Your task to perform on an android device: When is my next appointment? Image 0: 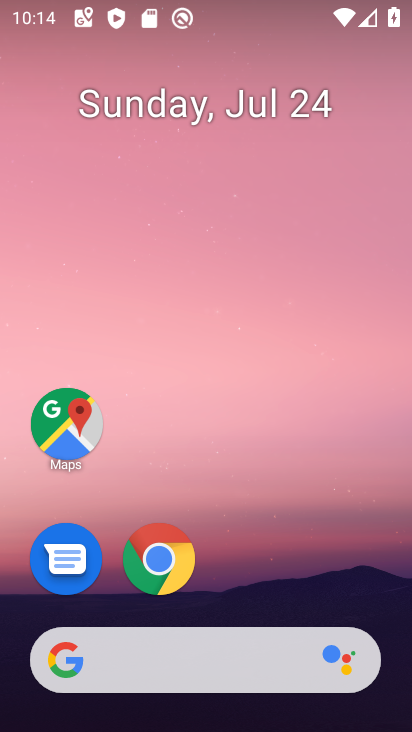
Step 0: drag from (232, 589) to (296, 10)
Your task to perform on an android device: When is my next appointment? Image 1: 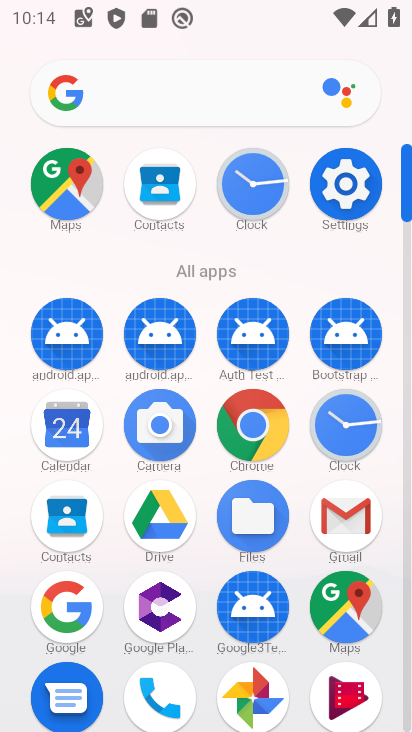
Step 1: click (174, 105)
Your task to perform on an android device: When is my next appointment? Image 2: 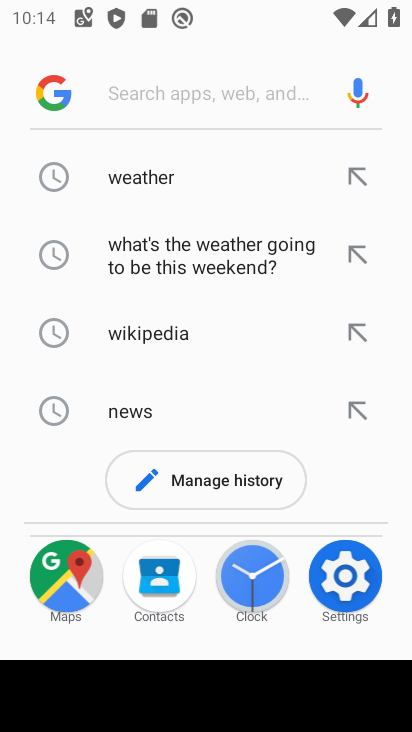
Step 2: press back button
Your task to perform on an android device: When is my next appointment? Image 3: 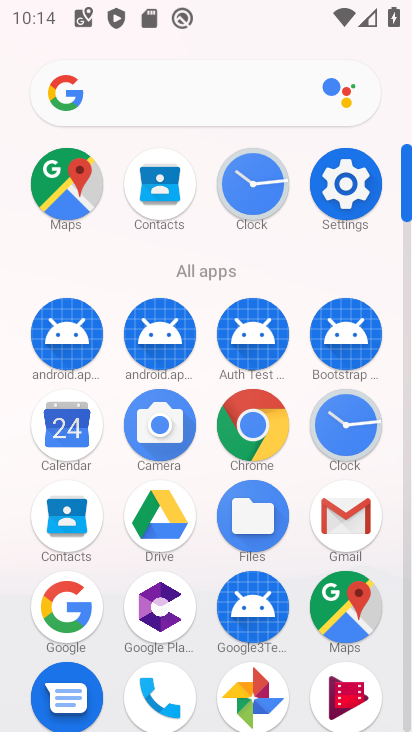
Step 3: click (187, 95)
Your task to perform on an android device: When is my next appointment? Image 4: 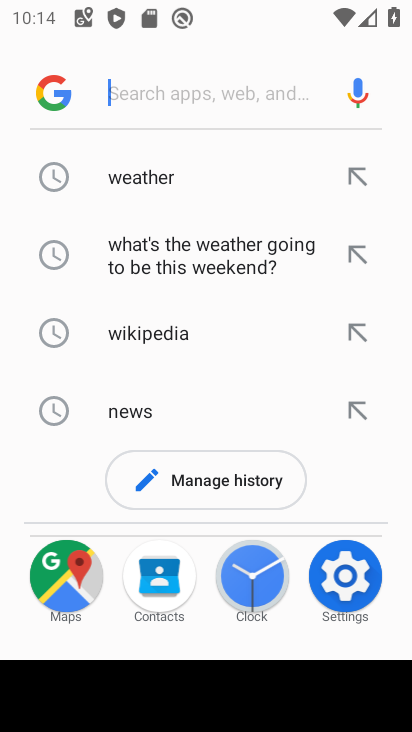
Step 4: press back button
Your task to perform on an android device: When is my next appointment? Image 5: 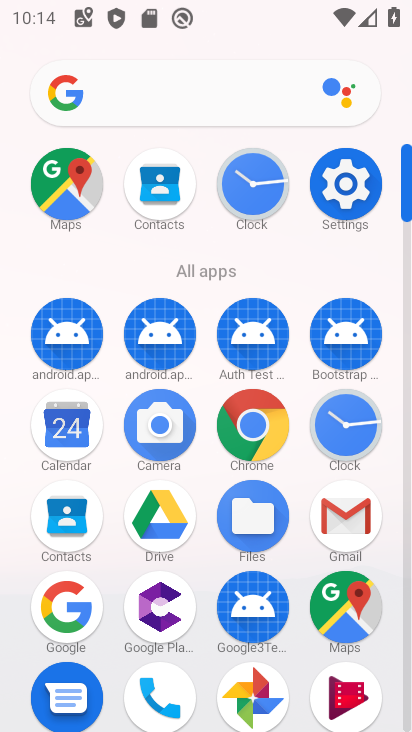
Step 5: click (83, 426)
Your task to perform on an android device: When is my next appointment? Image 6: 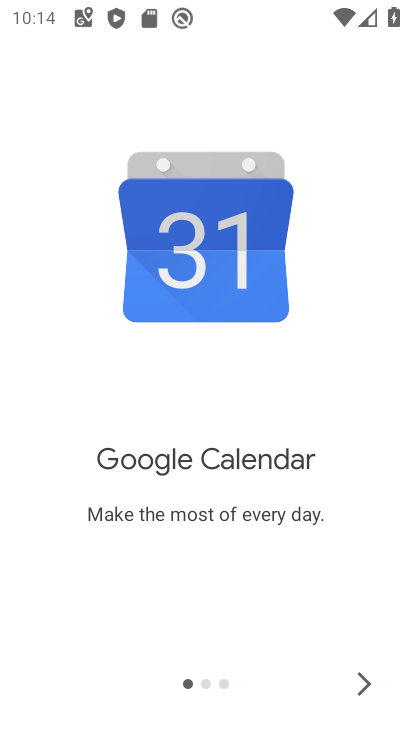
Step 6: click (387, 672)
Your task to perform on an android device: When is my next appointment? Image 7: 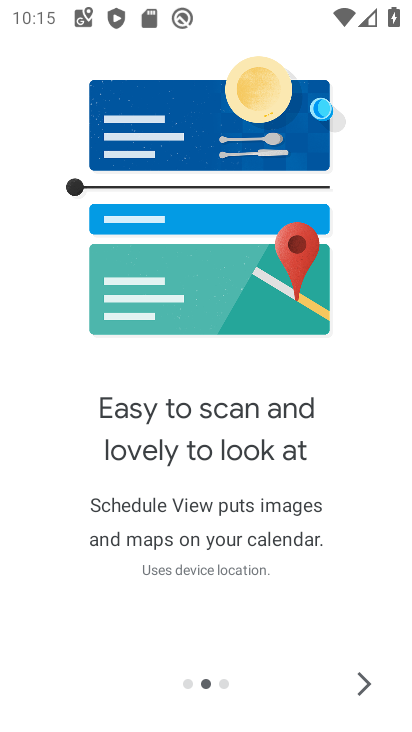
Step 7: click (352, 665)
Your task to perform on an android device: When is my next appointment? Image 8: 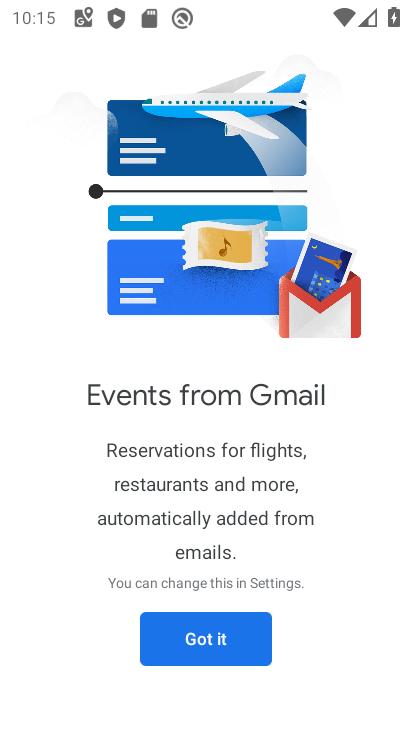
Step 8: click (240, 632)
Your task to perform on an android device: When is my next appointment? Image 9: 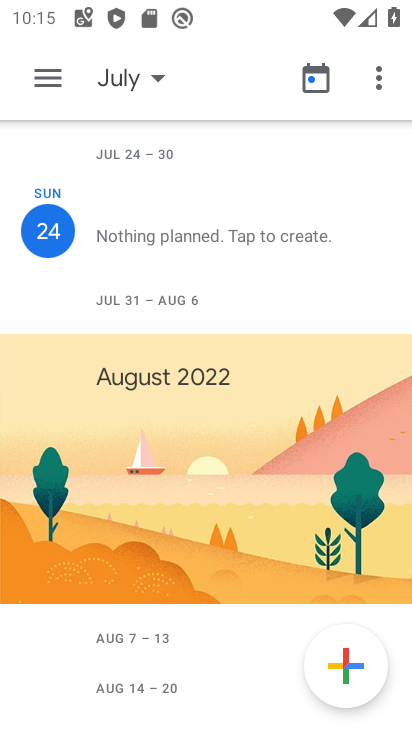
Step 9: task complete